Your task to perform on an android device: Open Google Image 0: 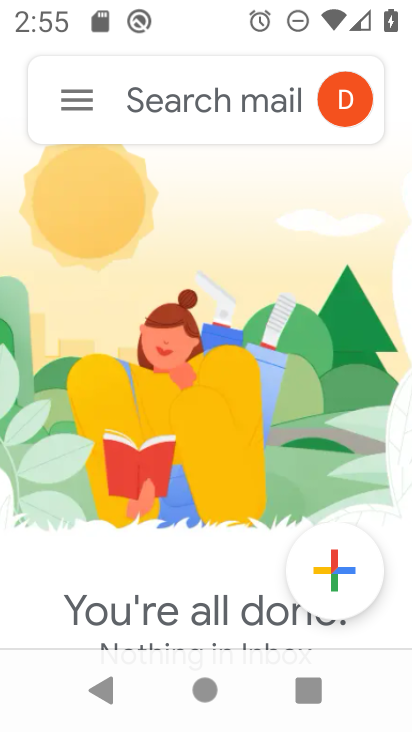
Step 0: press home button
Your task to perform on an android device: Open Google Image 1: 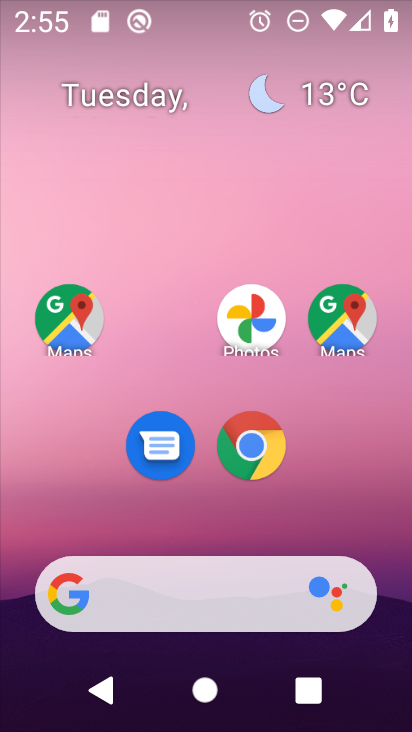
Step 1: drag from (388, 517) to (387, 193)
Your task to perform on an android device: Open Google Image 2: 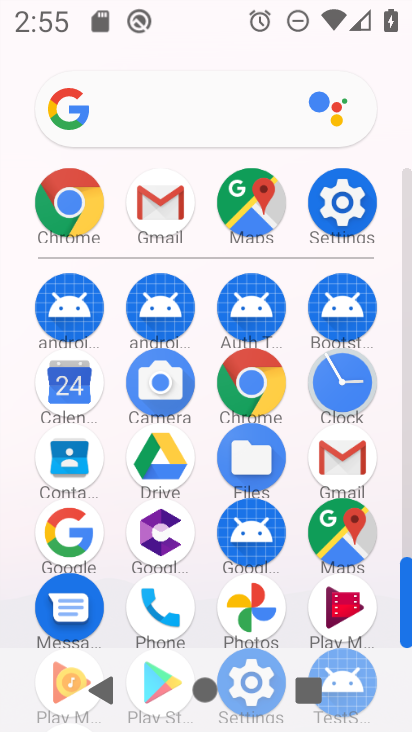
Step 2: drag from (385, 493) to (383, 281)
Your task to perform on an android device: Open Google Image 3: 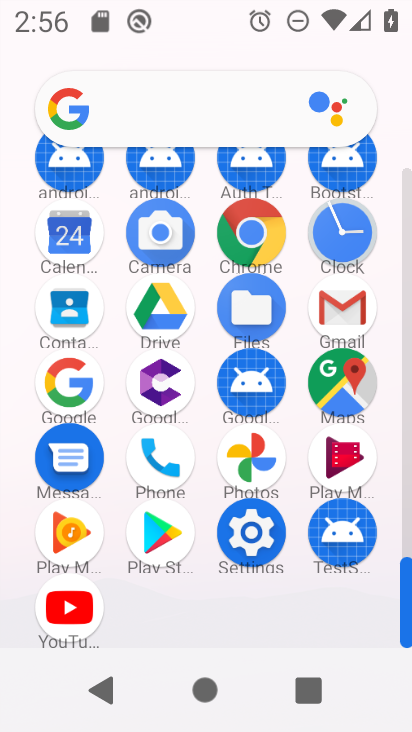
Step 3: click (77, 382)
Your task to perform on an android device: Open Google Image 4: 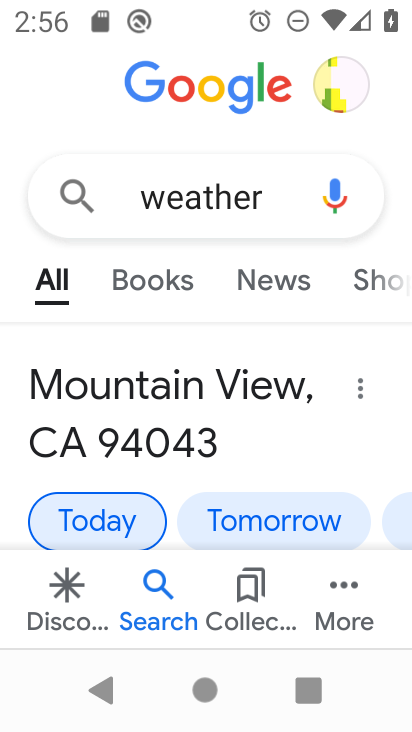
Step 4: task complete